Your task to perform on an android device: Search for flights from Mexico city to Boston Image 0: 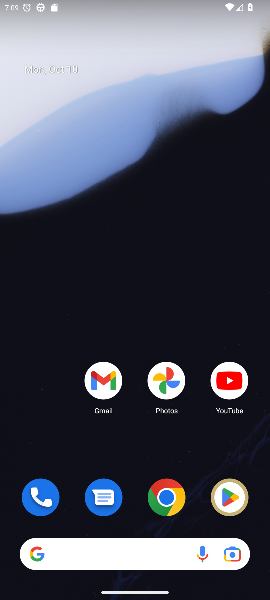
Step 0: drag from (130, 512) to (138, 238)
Your task to perform on an android device: Search for flights from Mexico city to Boston Image 1: 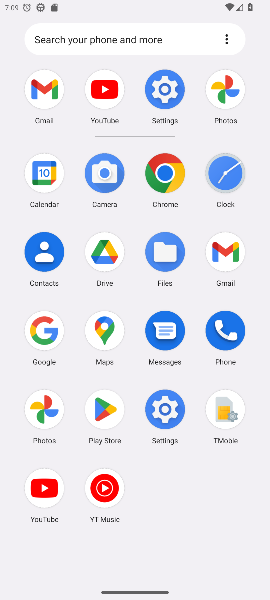
Step 1: click (39, 317)
Your task to perform on an android device: Search for flights from Mexico city to Boston Image 2: 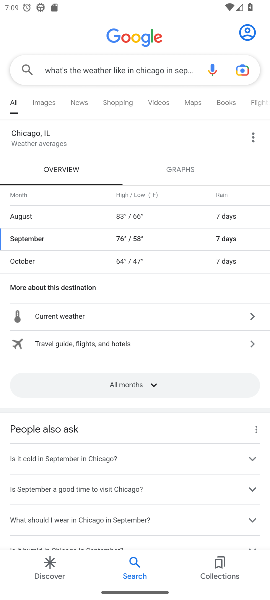
Step 2: click (141, 63)
Your task to perform on an android device: Search for flights from Mexico city to Boston Image 3: 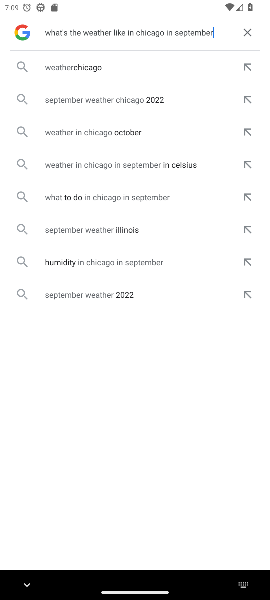
Step 3: click (248, 31)
Your task to perform on an android device: Search for flights from Mexico city to Boston Image 4: 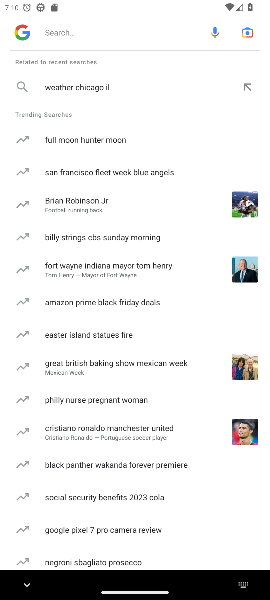
Step 4: click (126, 30)
Your task to perform on an android device: Search for flights from Mexico city to Boston Image 5: 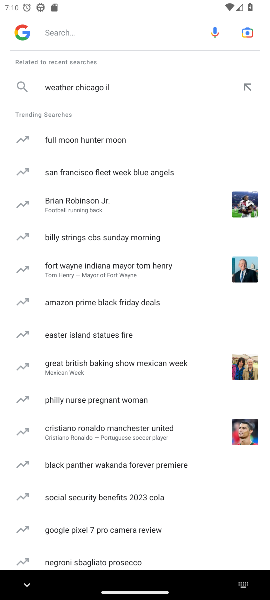
Step 5: type "Search for flights from Mexico city to Boston "
Your task to perform on an android device: Search for flights from Mexico city to Boston Image 6: 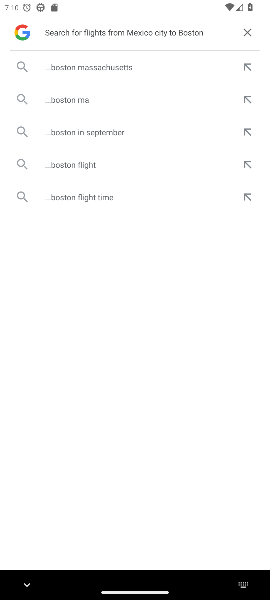
Step 6: click (87, 66)
Your task to perform on an android device: Search for flights from Mexico city to Boston Image 7: 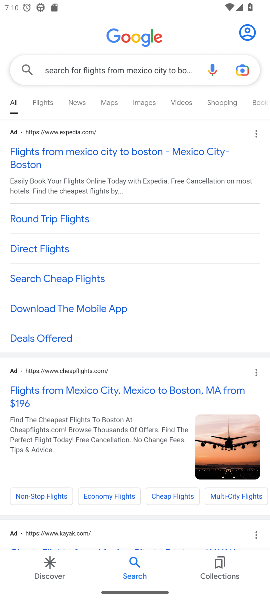
Step 7: click (102, 153)
Your task to perform on an android device: Search for flights from Mexico city to Boston Image 8: 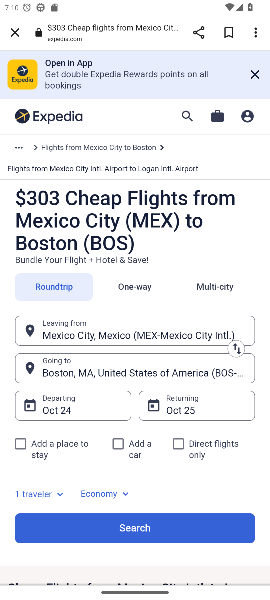
Step 8: task complete